Your task to perform on an android device: Open Maps and search for coffee Image 0: 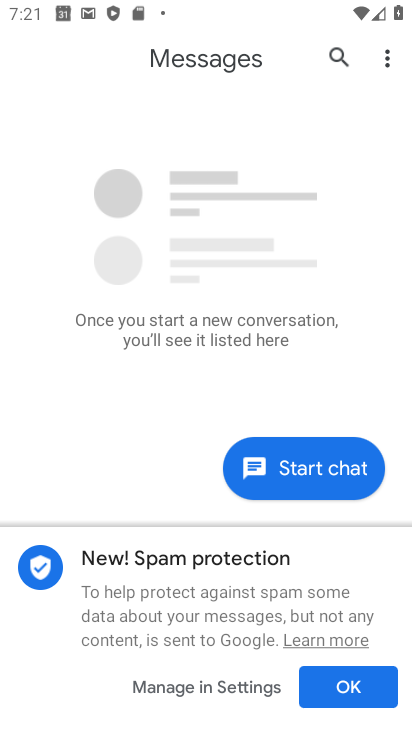
Step 0: press home button
Your task to perform on an android device: Open Maps and search for coffee Image 1: 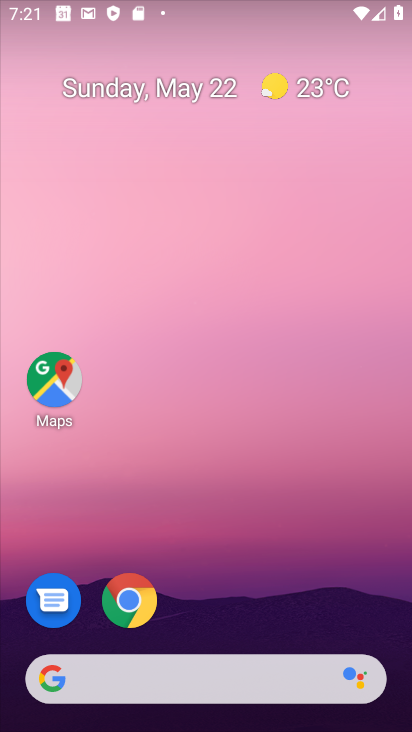
Step 1: drag from (376, 633) to (213, 63)
Your task to perform on an android device: Open Maps and search for coffee Image 2: 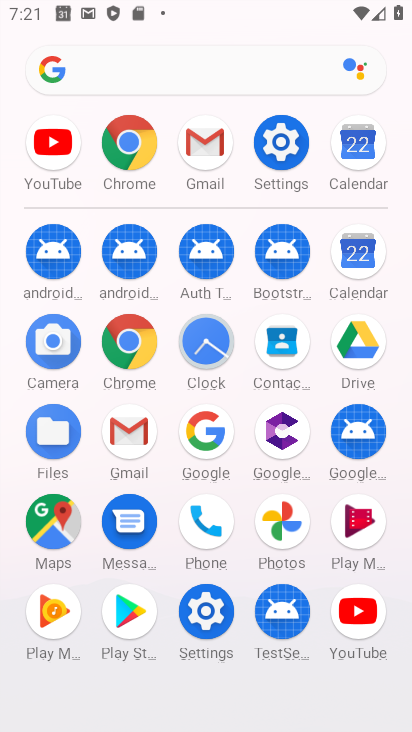
Step 2: click (56, 532)
Your task to perform on an android device: Open Maps and search for coffee Image 3: 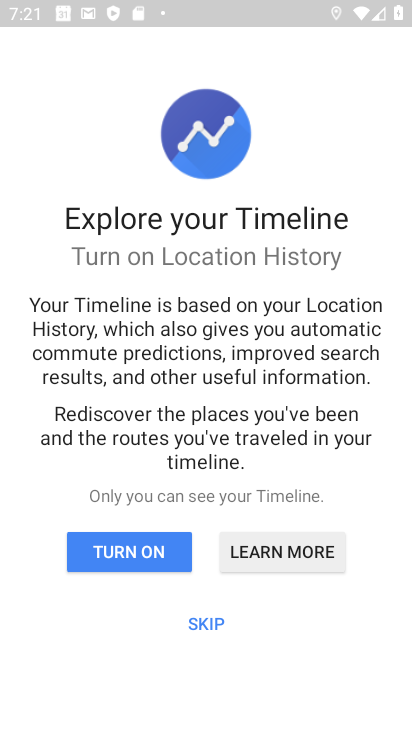
Step 3: press back button
Your task to perform on an android device: Open Maps and search for coffee Image 4: 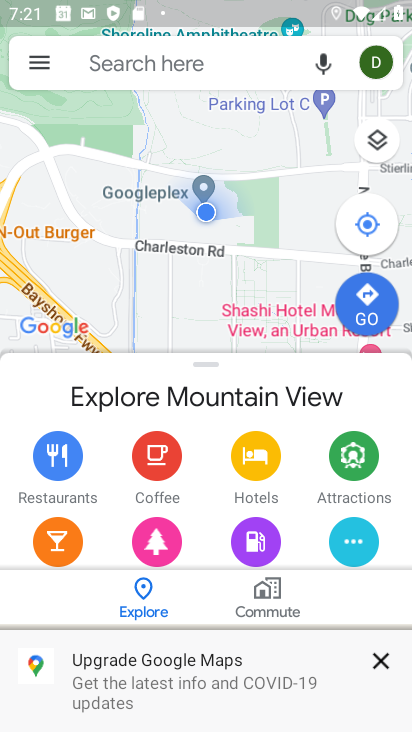
Step 4: click (152, 58)
Your task to perform on an android device: Open Maps and search for coffee Image 5: 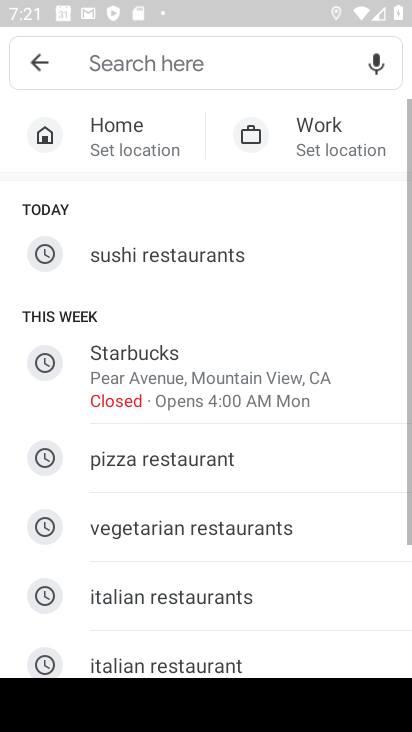
Step 5: drag from (159, 576) to (177, 229)
Your task to perform on an android device: Open Maps and search for coffee Image 6: 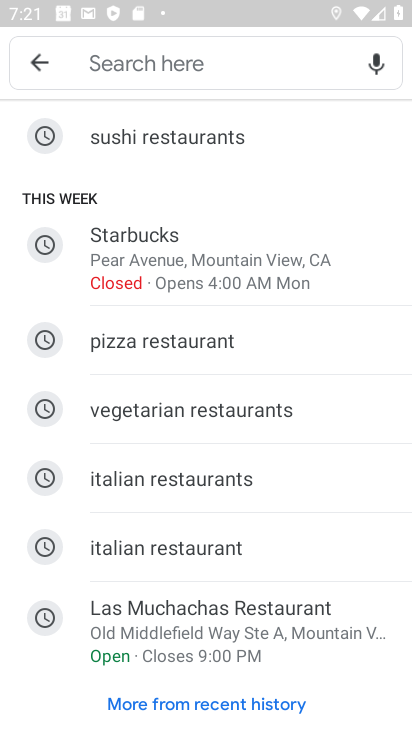
Step 6: click (189, 59)
Your task to perform on an android device: Open Maps and search for coffee Image 7: 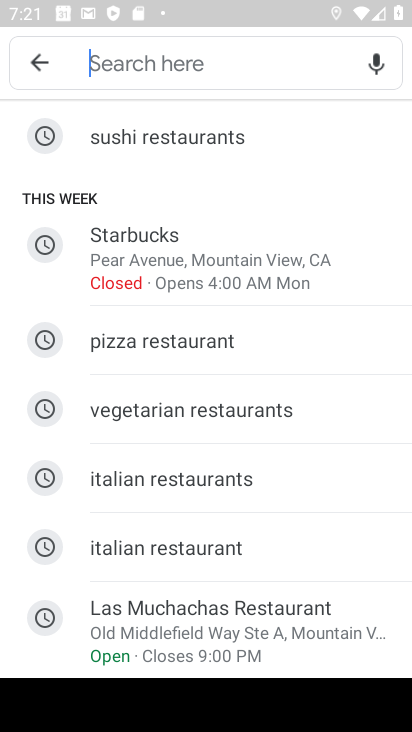
Step 7: type "coffee"
Your task to perform on an android device: Open Maps and search for coffee Image 8: 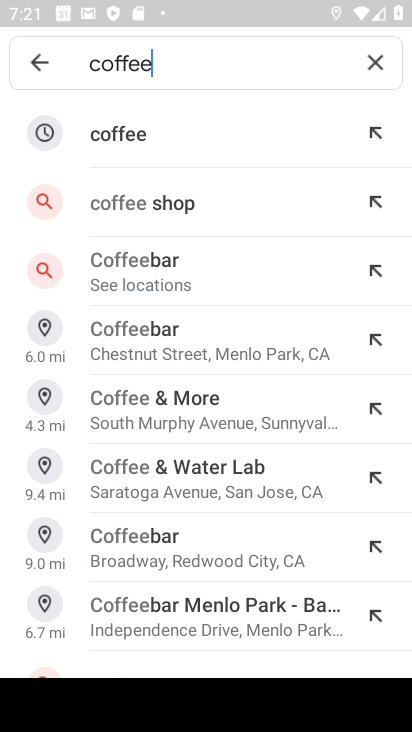
Step 8: click (117, 140)
Your task to perform on an android device: Open Maps and search for coffee Image 9: 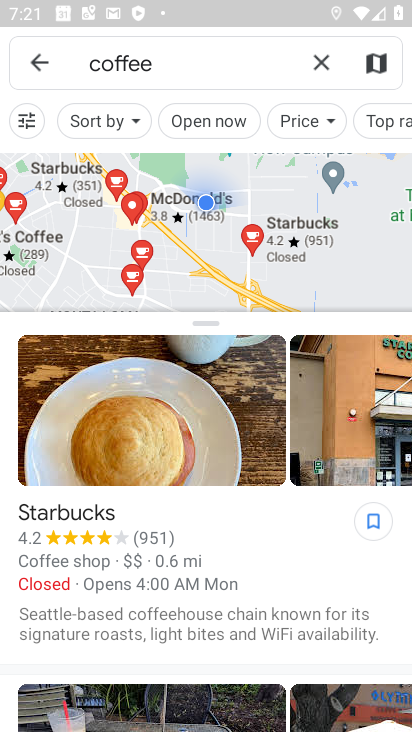
Step 9: task complete